Your task to perform on an android device: check out phone information Image 0: 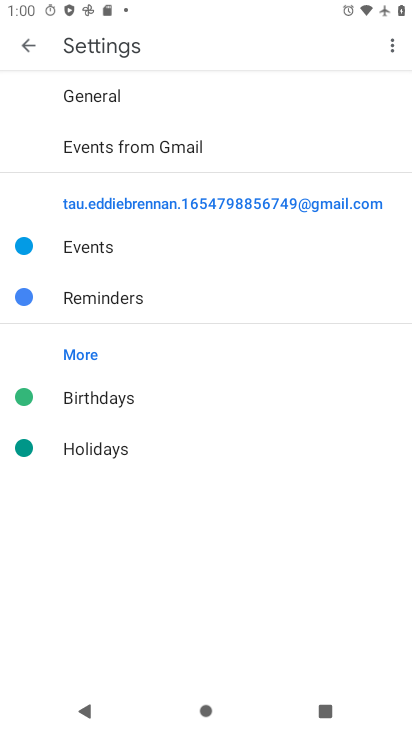
Step 0: press home button
Your task to perform on an android device: check out phone information Image 1: 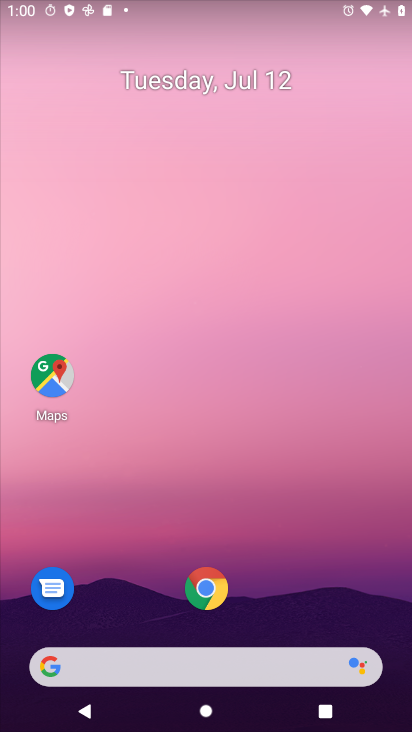
Step 1: drag from (186, 663) to (227, 66)
Your task to perform on an android device: check out phone information Image 2: 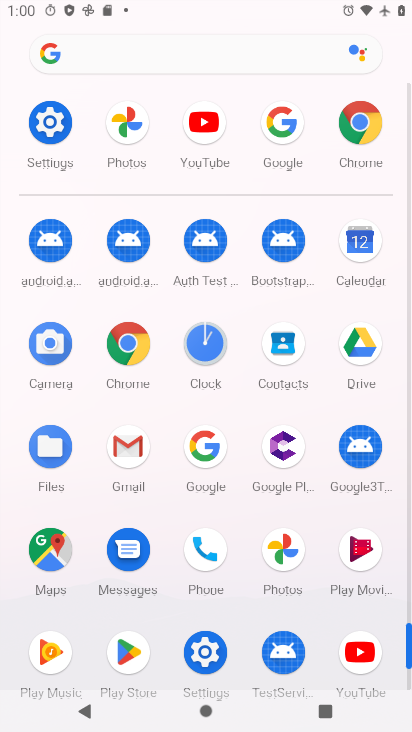
Step 2: click (54, 124)
Your task to perform on an android device: check out phone information Image 3: 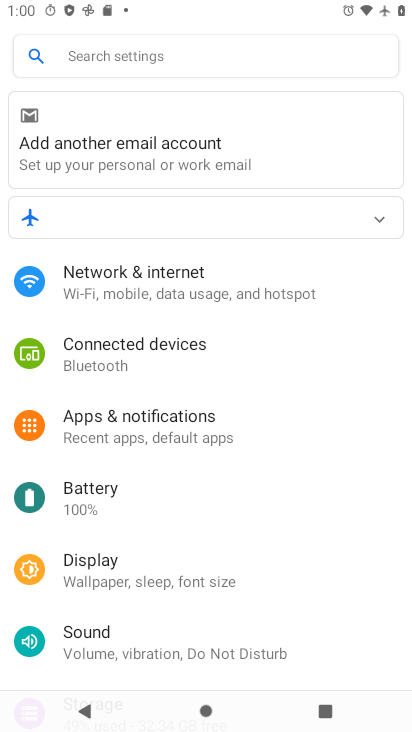
Step 3: drag from (164, 623) to (368, 10)
Your task to perform on an android device: check out phone information Image 4: 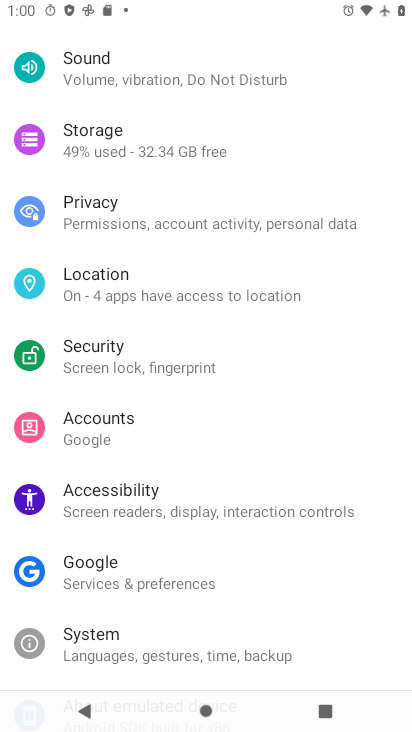
Step 4: drag from (178, 638) to (333, 19)
Your task to perform on an android device: check out phone information Image 5: 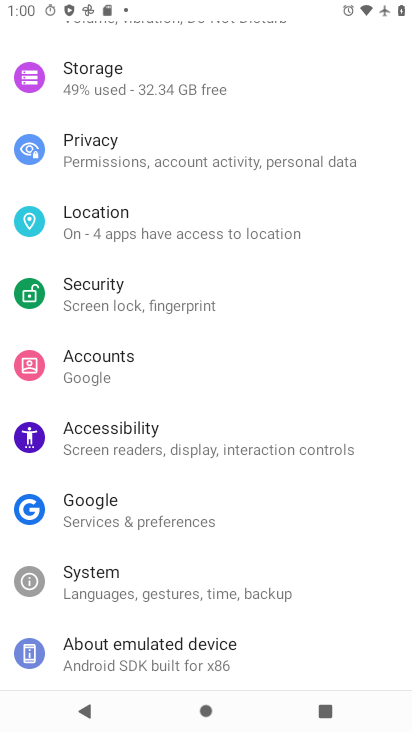
Step 5: click (167, 659)
Your task to perform on an android device: check out phone information Image 6: 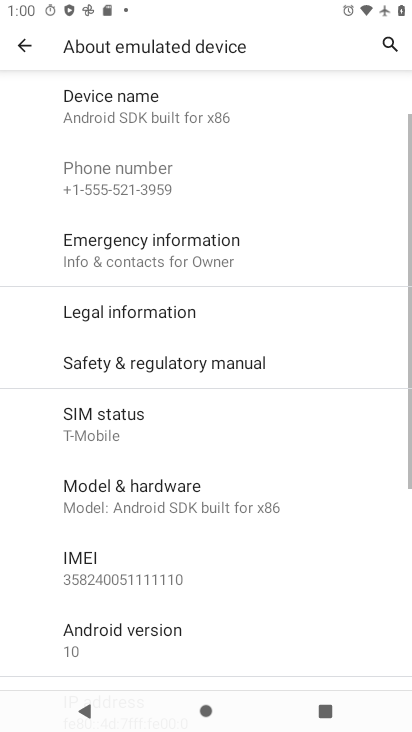
Step 6: task complete